Your task to perform on an android device: turn off location Image 0: 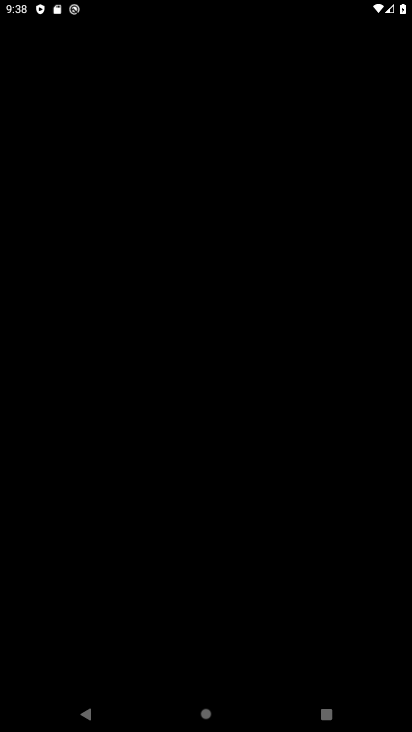
Step 0: press home button
Your task to perform on an android device: turn off location Image 1: 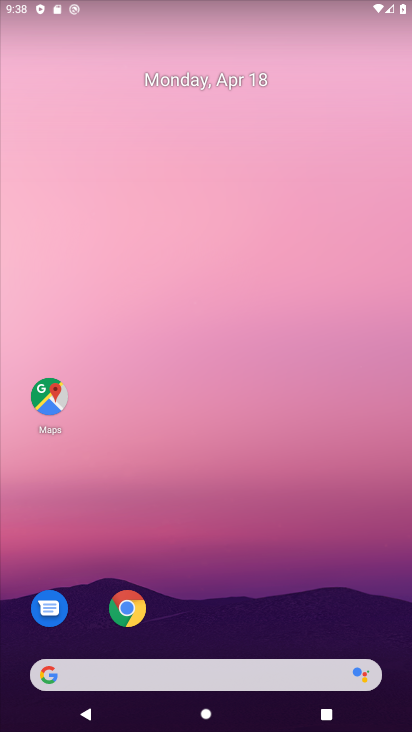
Step 1: click (216, 65)
Your task to perform on an android device: turn off location Image 2: 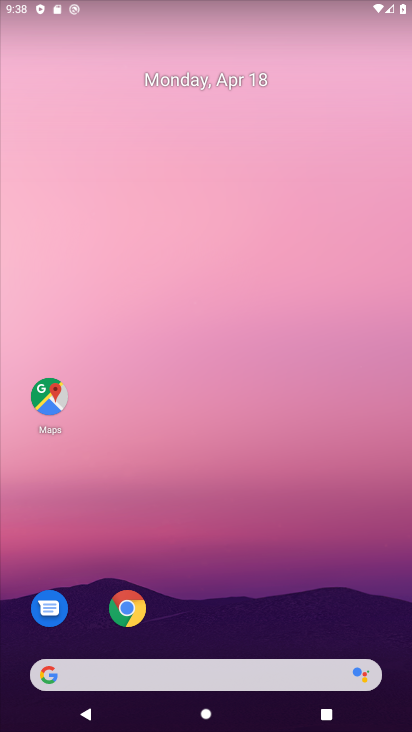
Step 2: drag from (204, 93) to (191, 37)
Your task to perform on an android device: turn off location Image 3: 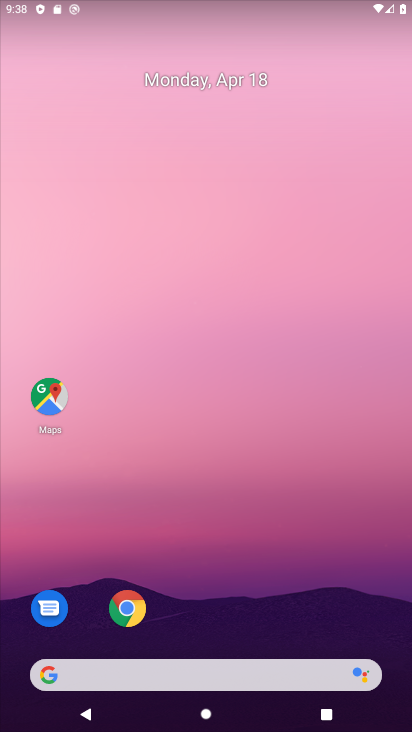
Step 3: drag from (238, 307) to (228, 0)
Your task to perform on an android device: turn off location Image 4: 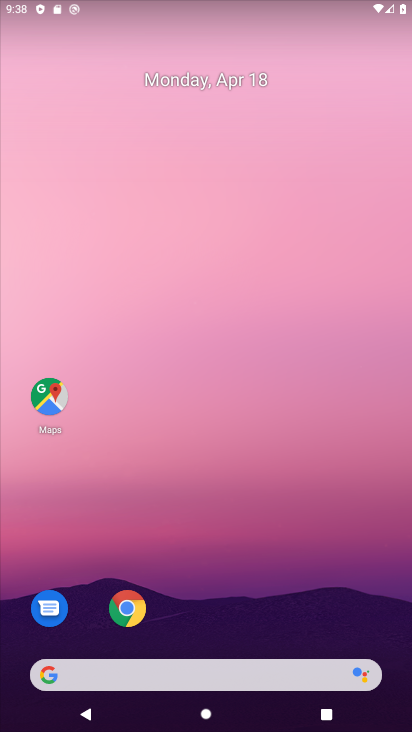
Step 4: drag from (203, 640) to (212, 1)
Your task to perform on an android device: turn off location Image 5: 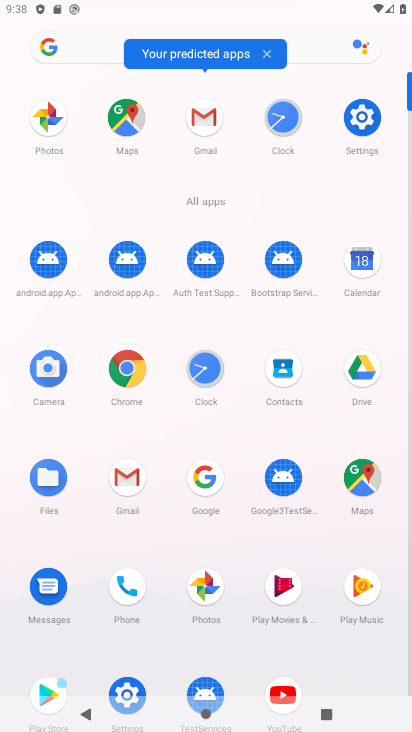
Step 5: click (368, 114)
Your task to perform on an android device: turn off location Image 6: 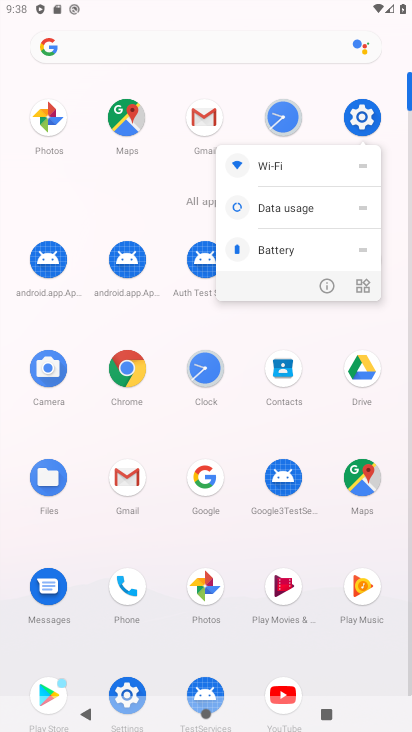
Step 6: click (362, 116)
Your task to perform on an android device: turn off location Image 7: 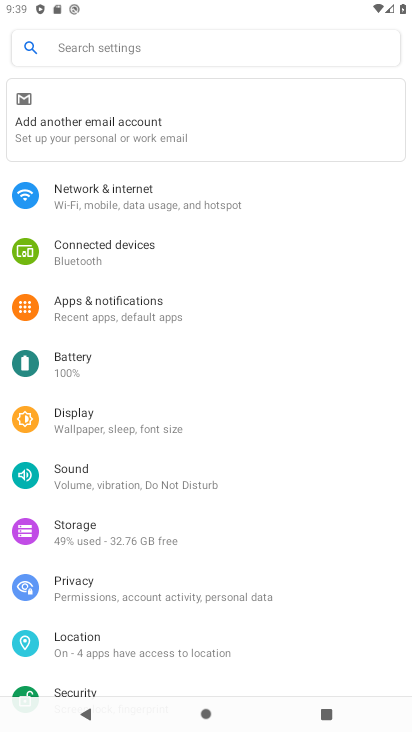
Step 7: click (115, 650)
Your task to perform on an android device: turn off location Image 8: 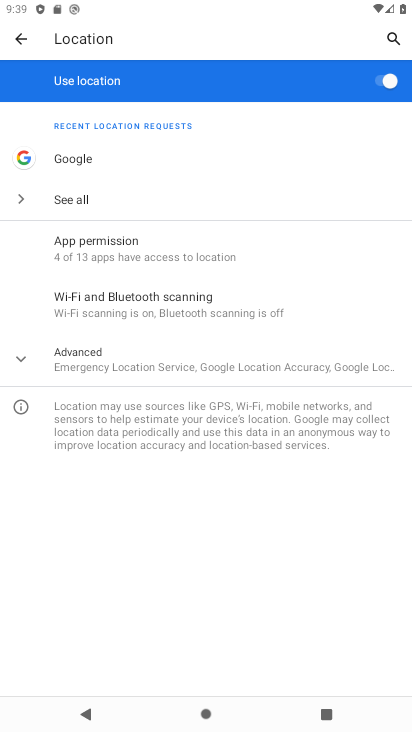
Step 8: click (389, 82)
Your task to perform on an android device: turn off location Image 9: 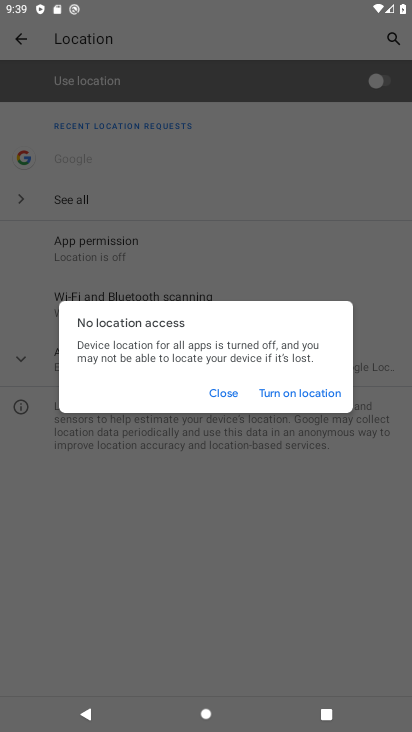
Step 9: task complete